Your task to perform on an android device: find snoozed emails in the gmail app Image 0: 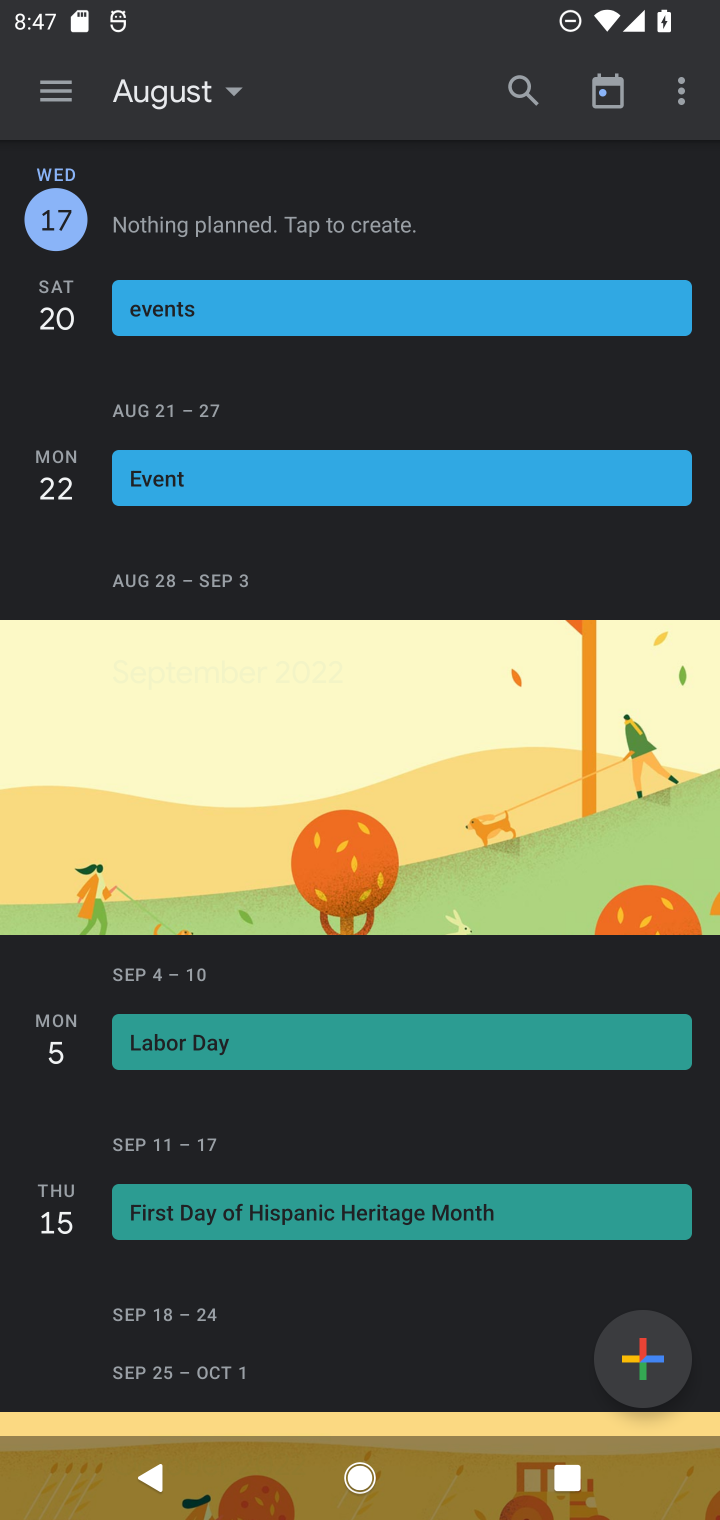
Step 0: press home button
Your task to perform on an android device: find snoozed emails in the gmail app Image 1: 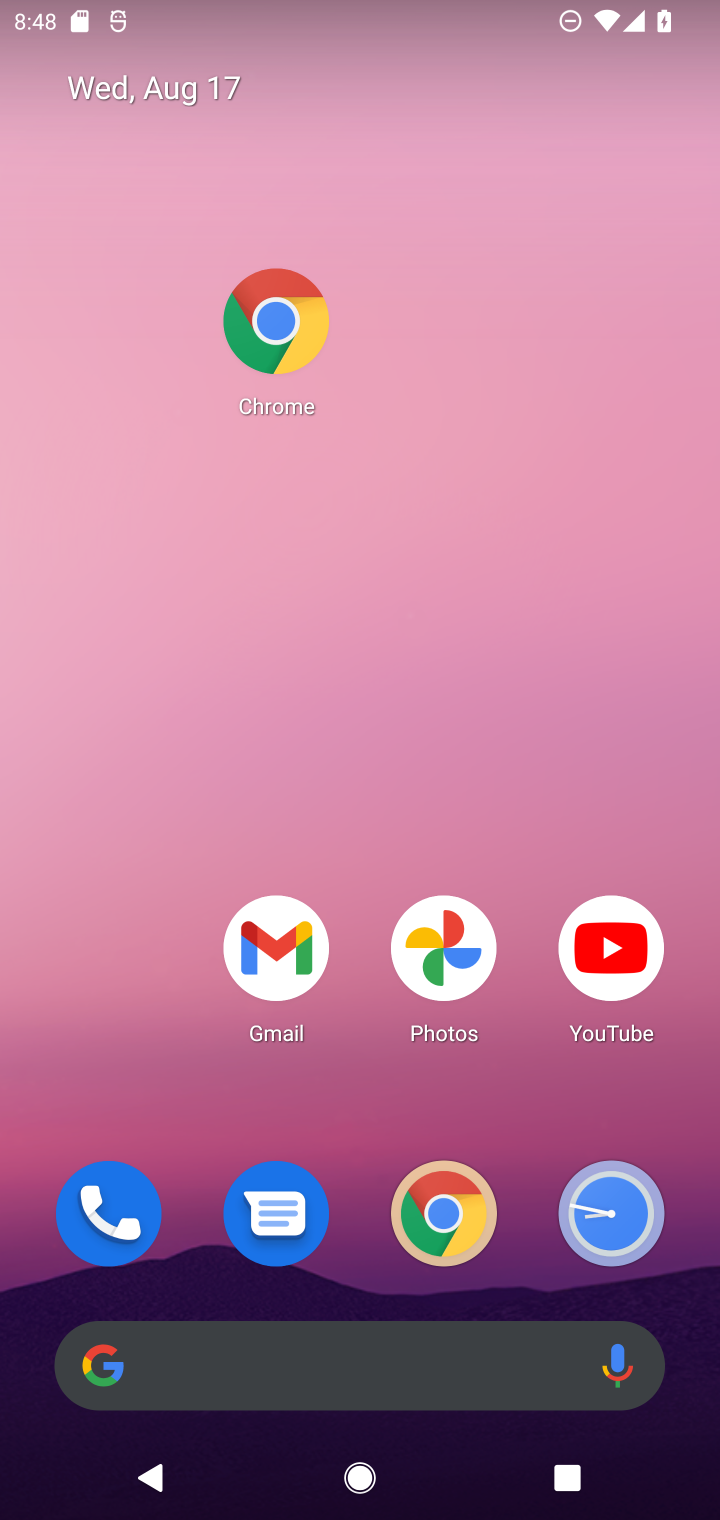
Step 1: click (282, 985)
Your task to perform on an android device: find snoozed emails in the gmail app Image 2: 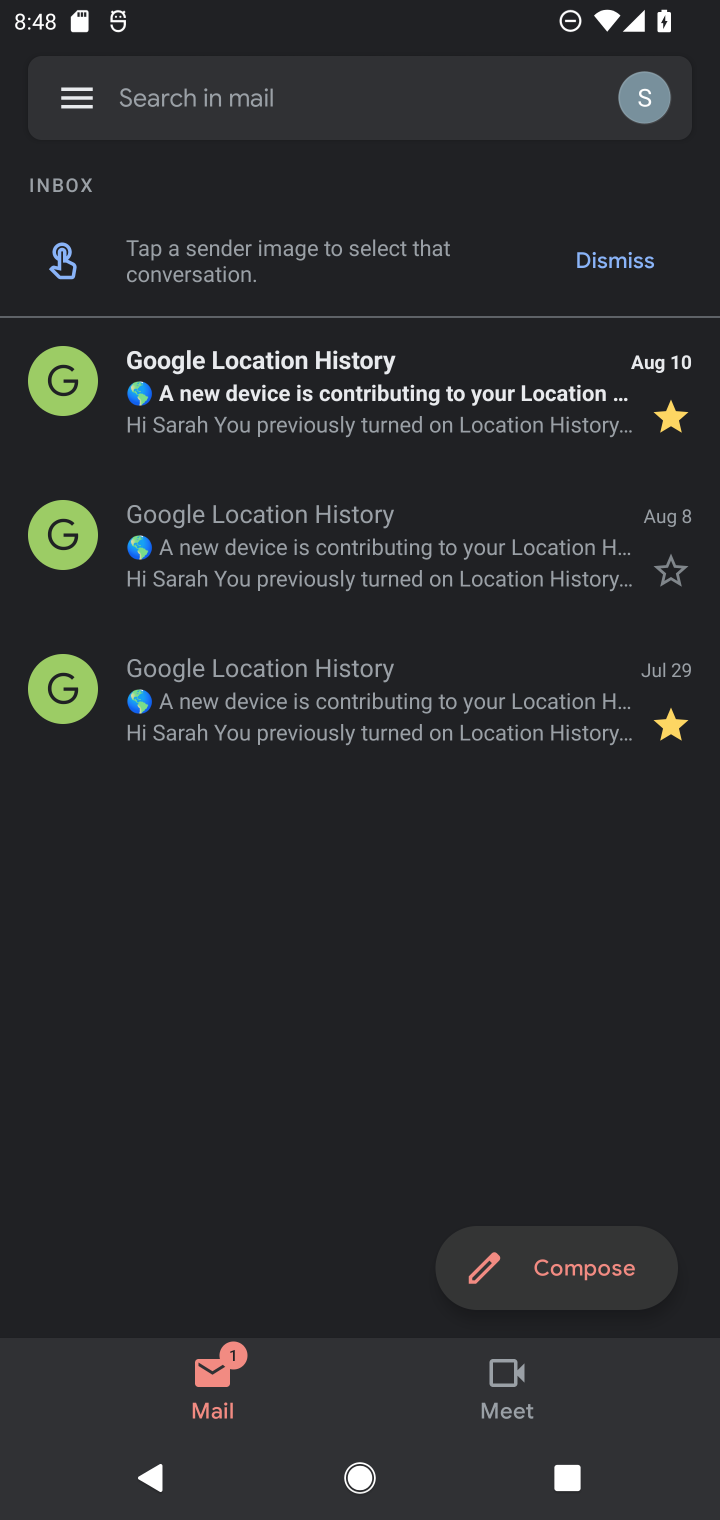
Step 2: click (77, 142)
Your task to perform on an android device: find snoozed emails in the gmail app Image 3: 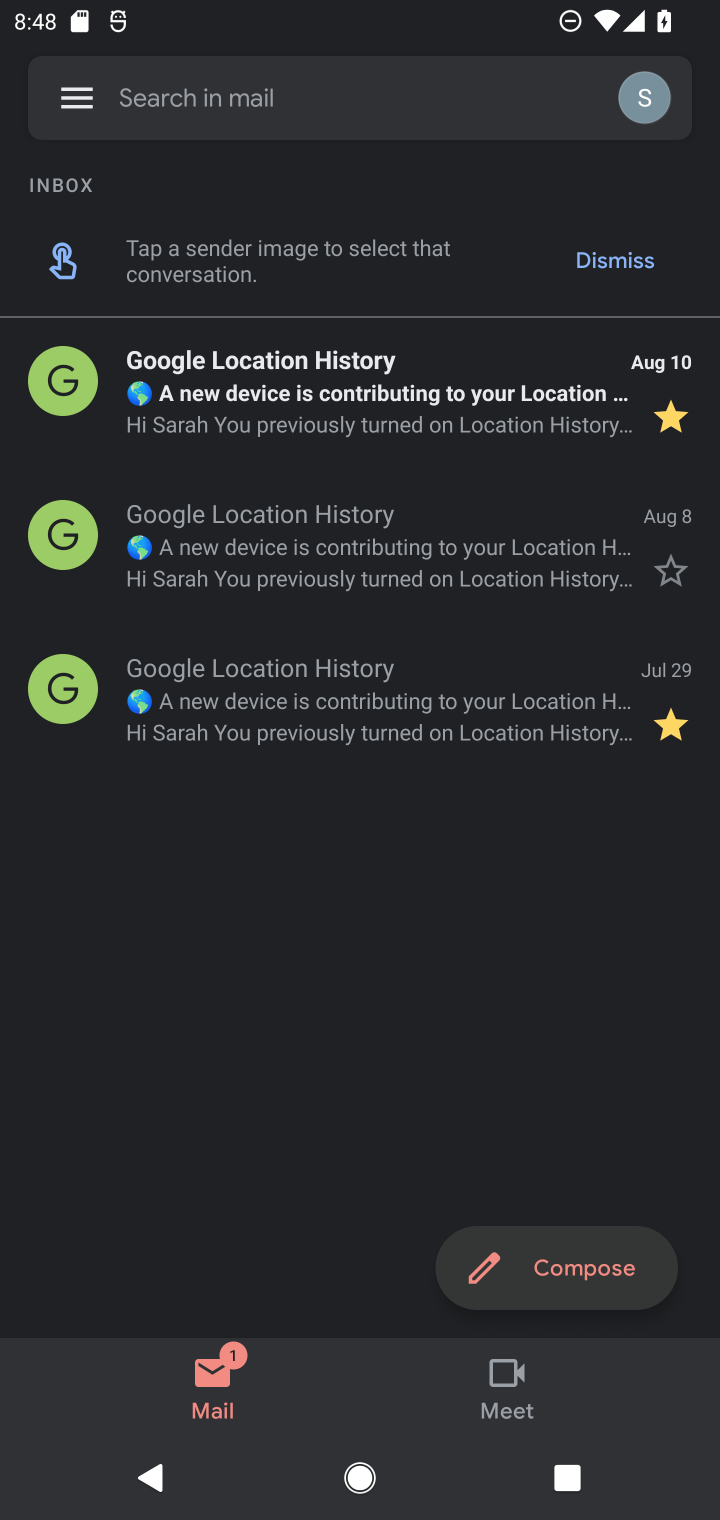
Step 3: click (69, 124)
Your task to perform on an android device: find snoozed emails in the gmail app Image 4: 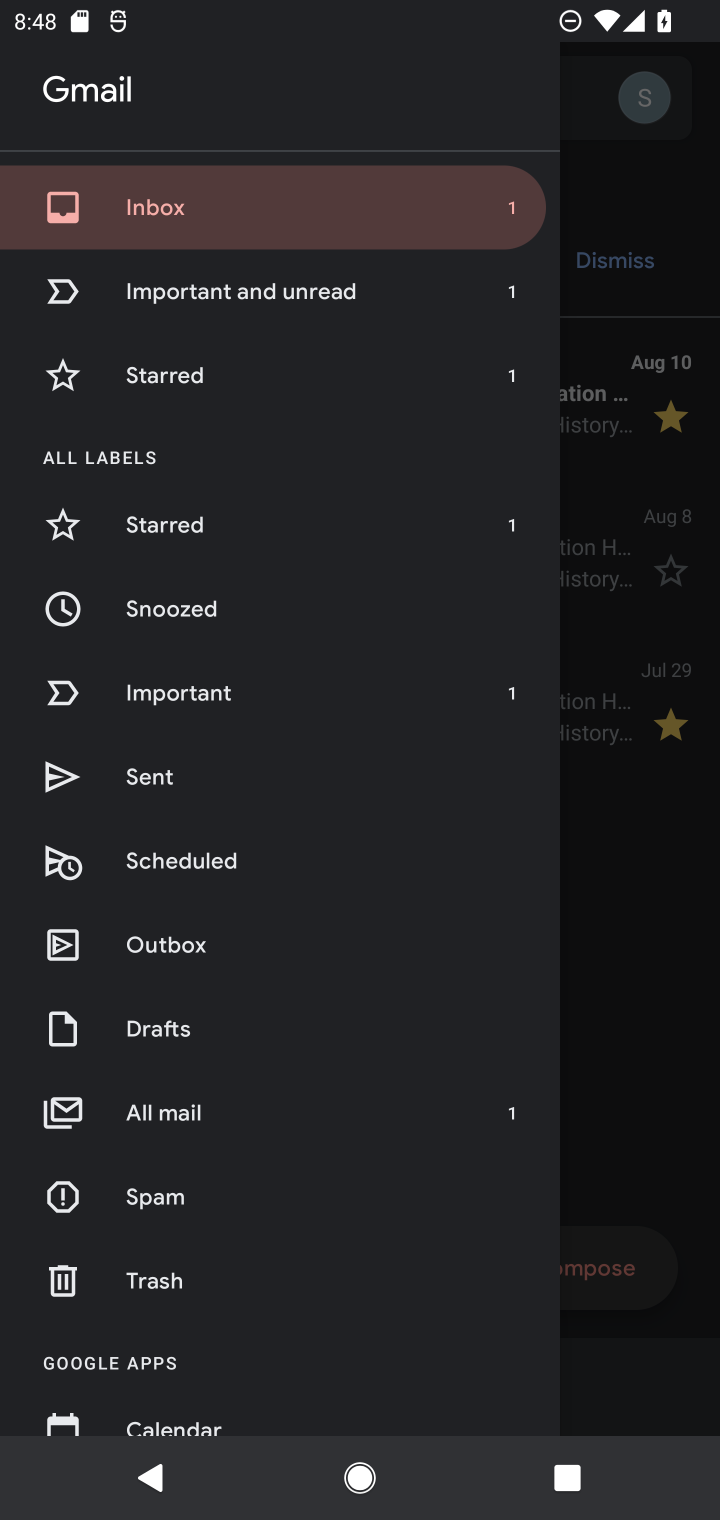
Step 4: click (63, 641)
Your task to perform on an android device: find snoozed emails in the gmail app Image 5: 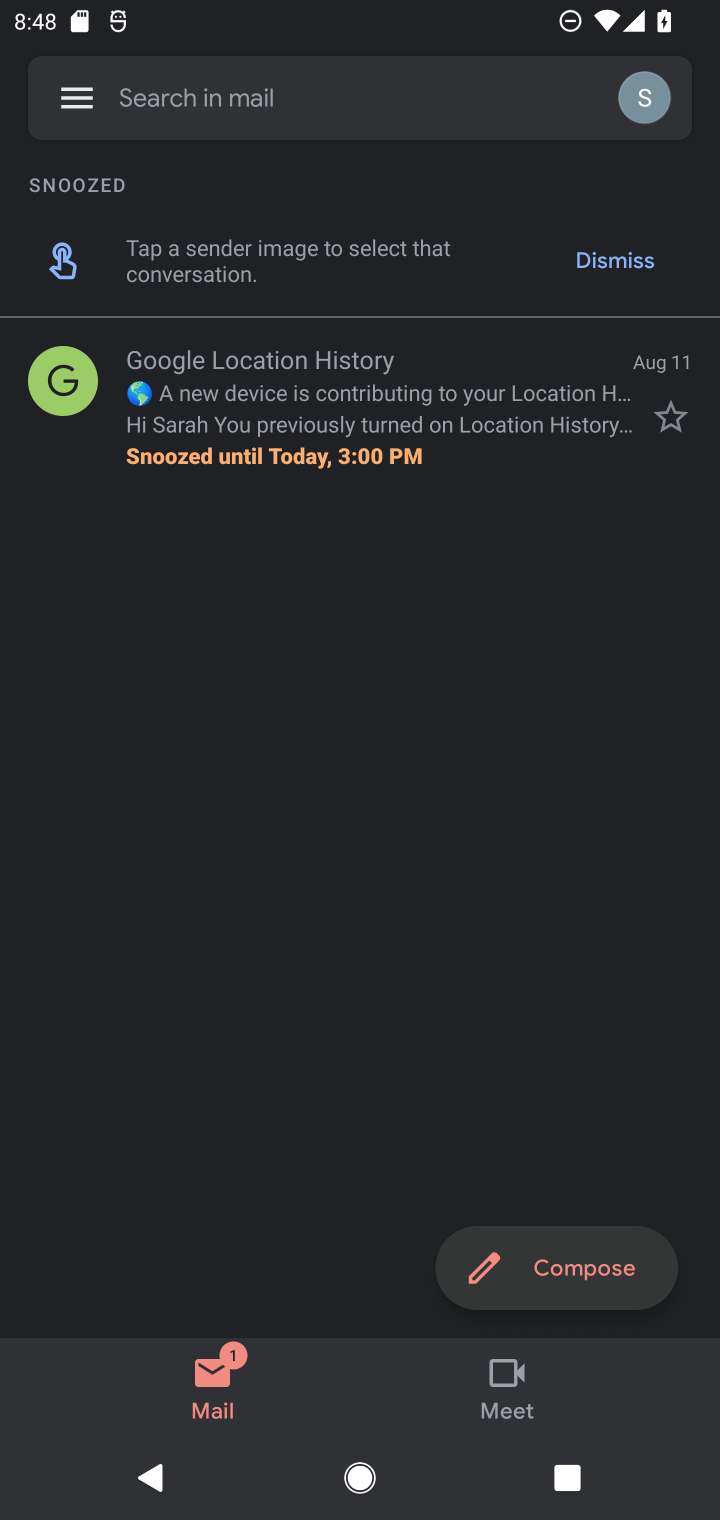
Step 5: task complete